Your task to perform on an android device: Go to accessibility settings Image 0: 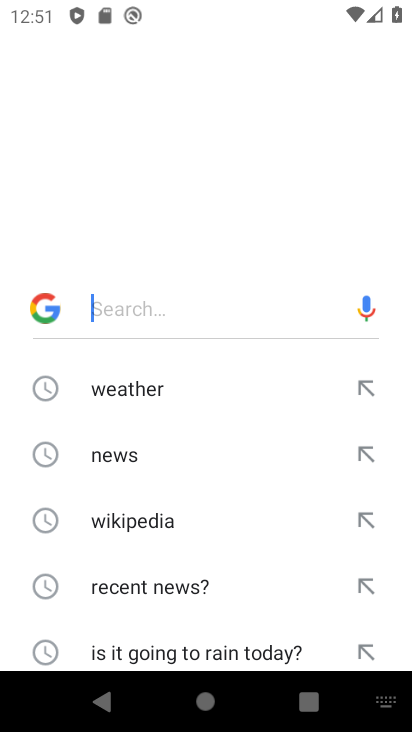
Step 0: press home button
Your task to perform on an android device: Go to accessibility settings Image 1: 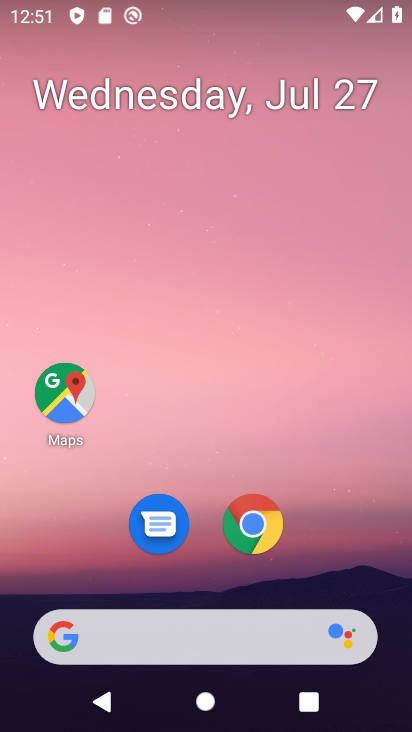
Step 1: drag from (306, 417) to (298, 18)
Your task to perform on an android device: Go to accessibility settings Image 2: 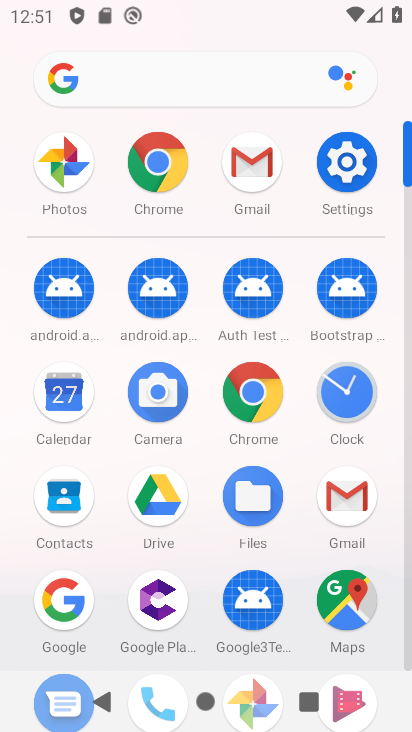
Step 2: click (350, 144)
Your task to perform on an android device: Go to accessibility settings Image 3: 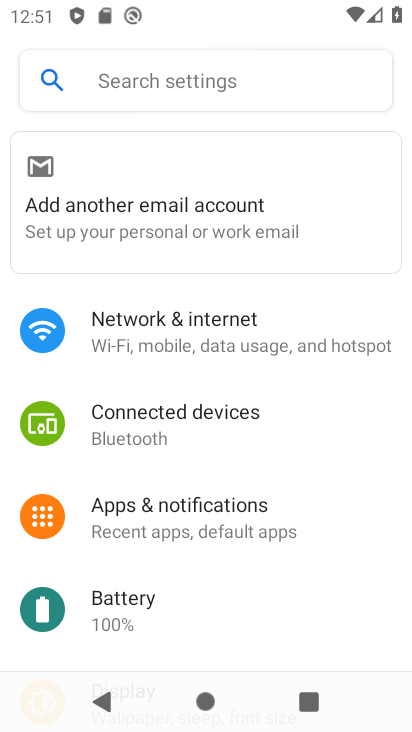
Step 3: drag from (232, 576) to (231, 137)
Your task to perform on an android device: Go to accessibility settings Image 4: 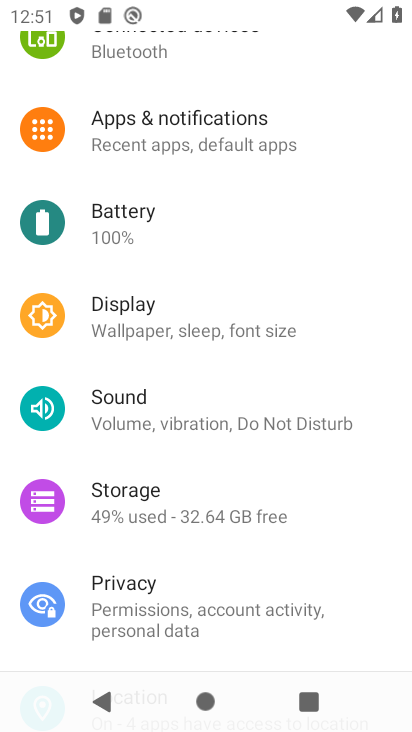
Step 4: drag from (189, 562) to (220, 158)
Your task to perform on an android device: Go to accessibility settings Image 5: 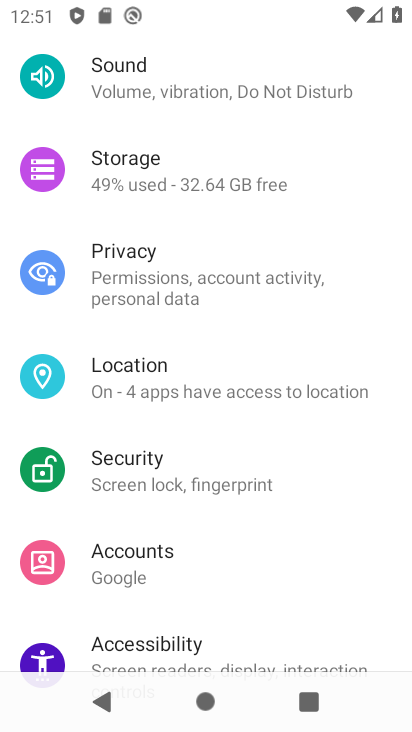
Step 5: drag from (203, 554) to (275, 260)
Your task to perform on an android device: Go to accessibility settings Image 6: 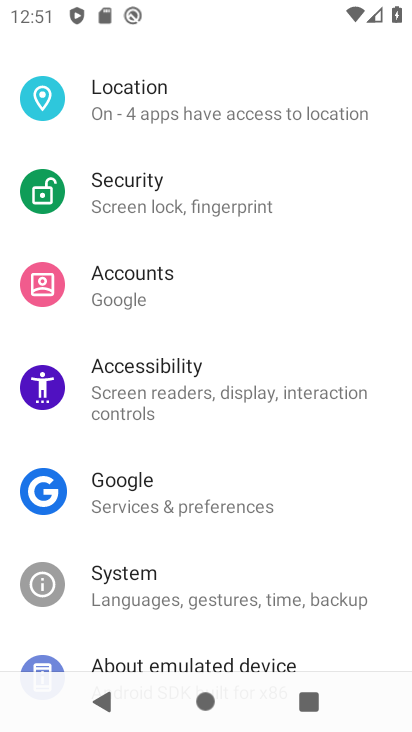
Step 6: click (220, 379)
Your task to perform on an android device: Go to accessibility settings Image 7: 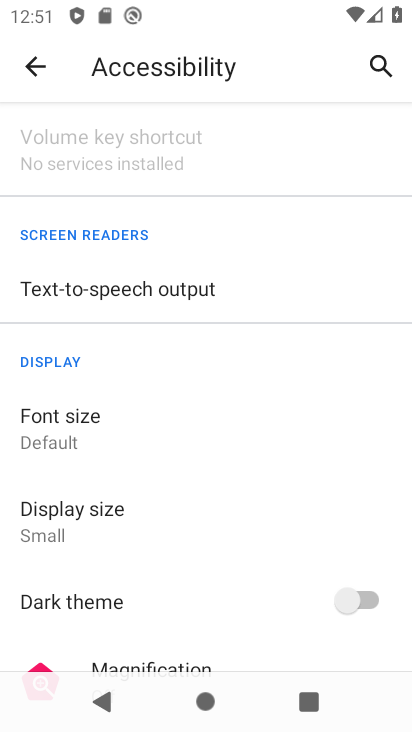
Step 7: task complete